Your task to perform on an android device: change the clock display to analog Image 0: 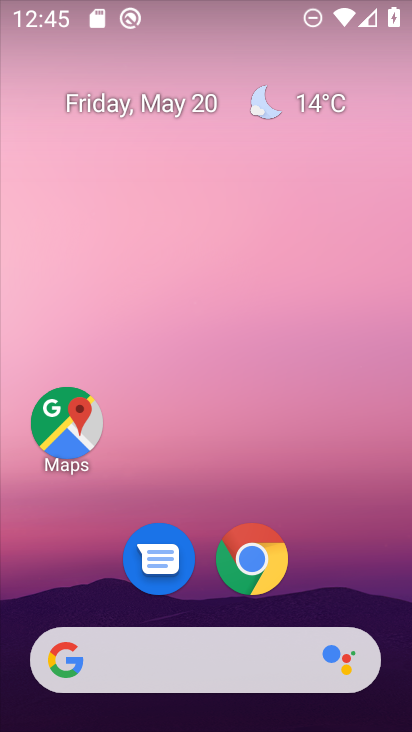
Step 0: drag from (348, 607) to (404, 301)
Your task to perform on an android device: change the clock display to analog Image 1: 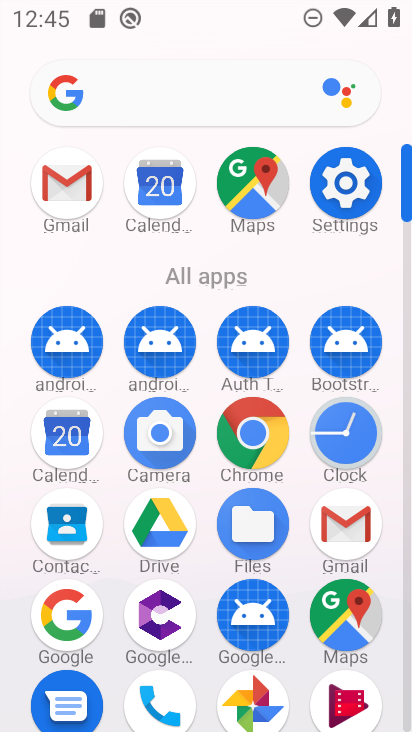
Step 1: click (369, 353)
Your task to perform on an android device: change the clock display to analog Image 2: 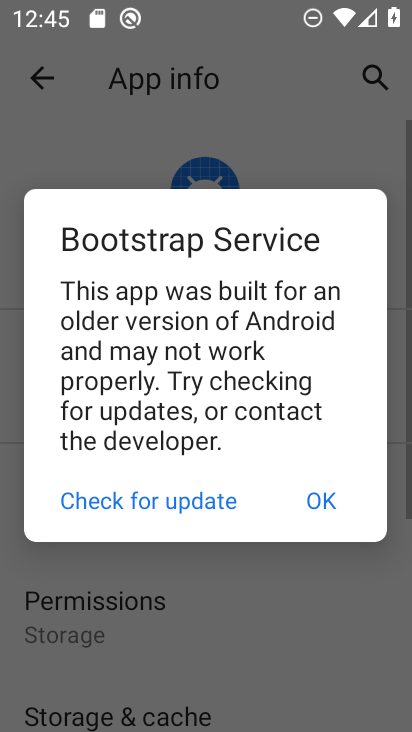
Step 2: click (314, 489)
Your task to perform on an android device: change the clock display to analog Image 3: 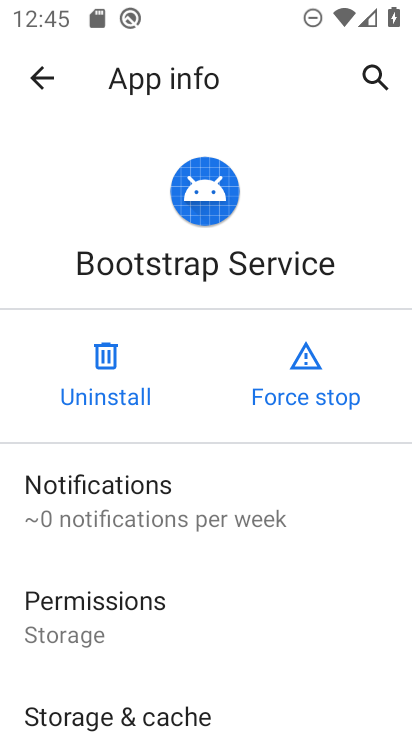
Step 3: press back button
Your task to perform on an android device: change the clock display to analog Image 4: 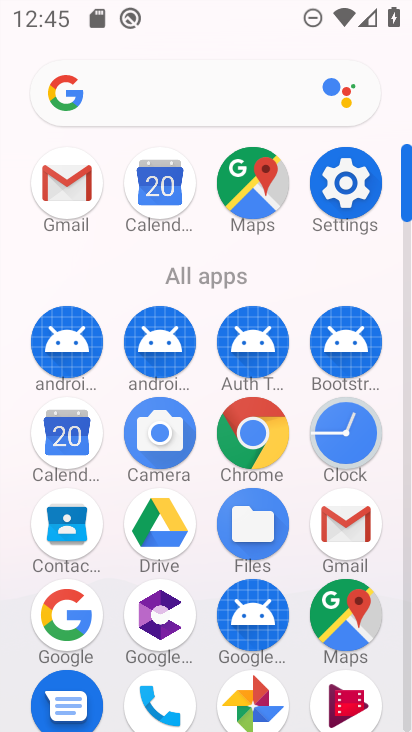
Step 4: click (336, 435)
Your task to perform on an android device: change the clock display to analog Image 5: 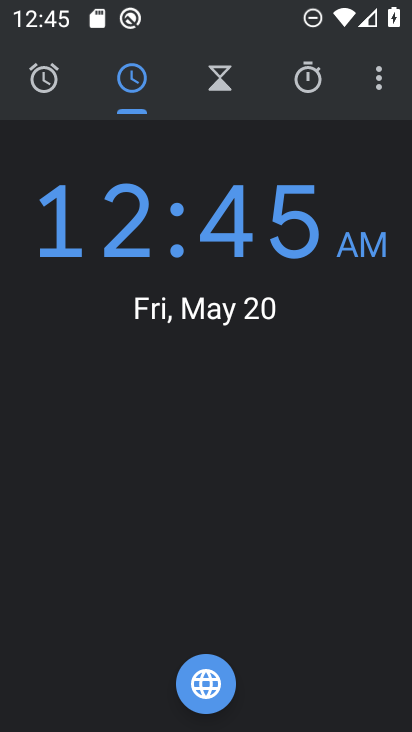
Step 5: click (392, 76)
Your task to perform on an android device: change the clock display to analog Image 6: 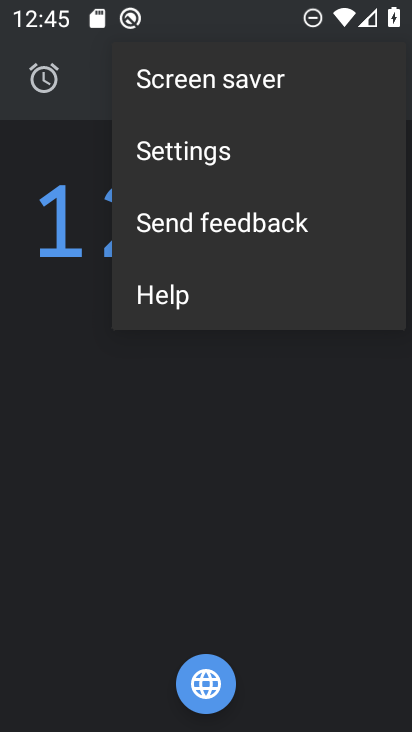
Step 6: click (285, 136)
Your task to perform on an android device: change the clock display to analog Image 7: 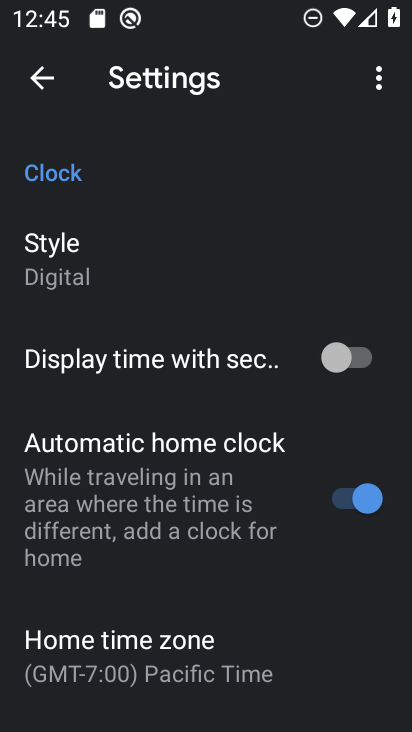
Step 7: drag from (181, 403) to (207, 196)
Your task to perform on an android device: change the clock display to analog Image 8: 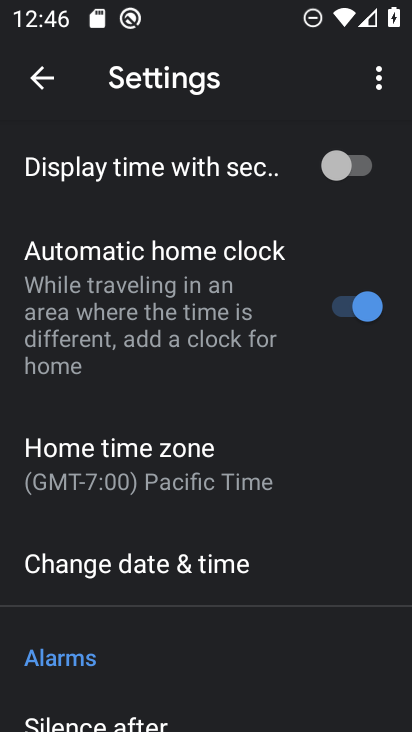
Step 8: drag from (233, 205) to (175, 249)
Your task to perform on an android device: change the clock display to analog Image 9: 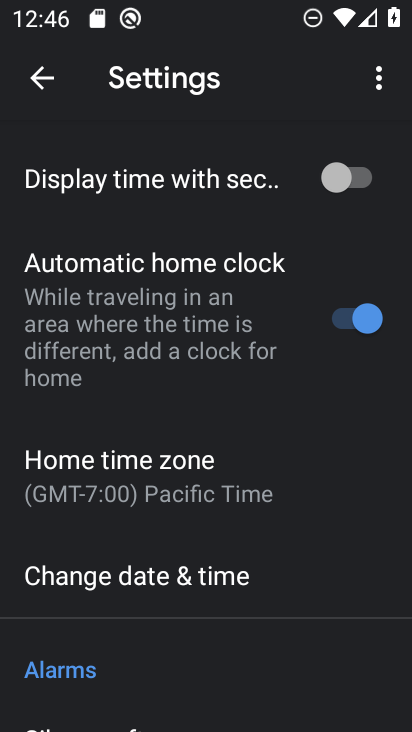
Step 9: click (256, 285)
Your task to perform on an android device: change the clock display to analog Image 10: 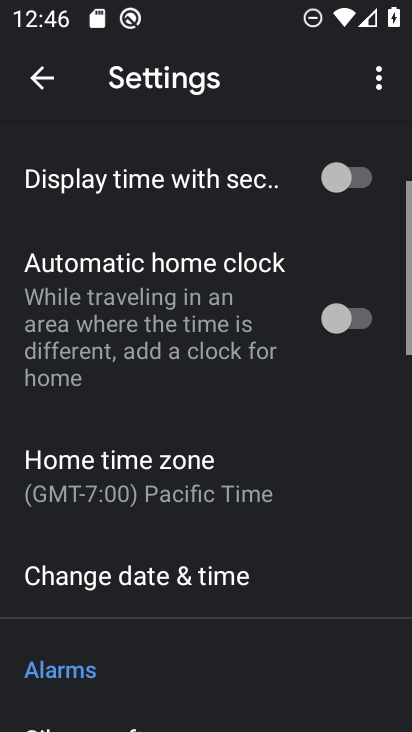
Step 10: drag from (255, 285) to (190, 479)
Your task to perform on an android device: change the clock display to analog Image 11: 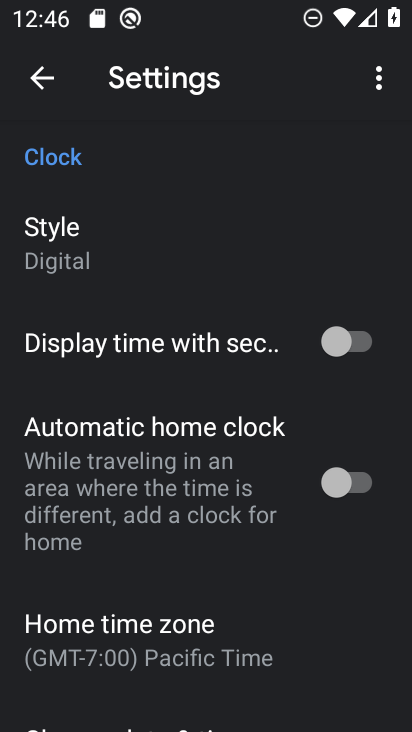
Step 11: drag from (244, 613) to (238, 529)
Your task to perform on an android device: change the clock display to analog Image 12: 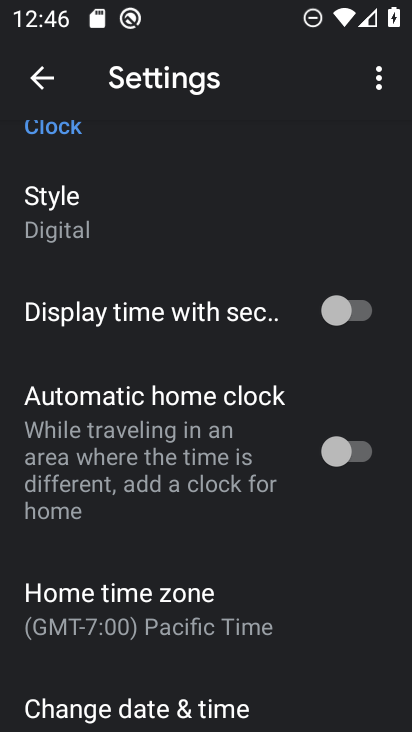
Step 12: click (192, 690)
Your task to perform on an android device: change the clock display to analog Image 13: 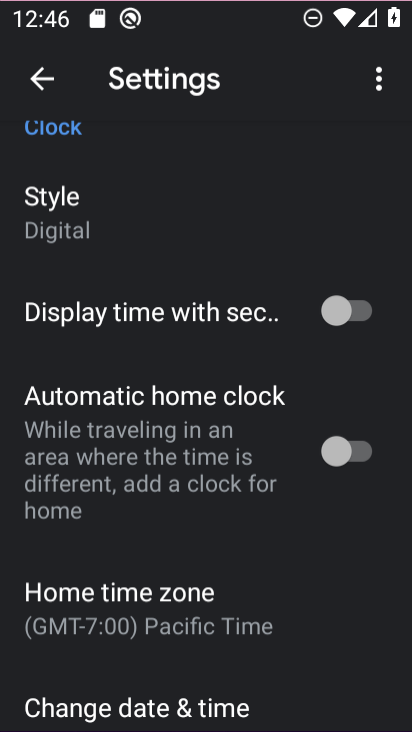
Step 13: click (192, 690)
Your task to perform on an android device: change the clock display to analog Image 14: 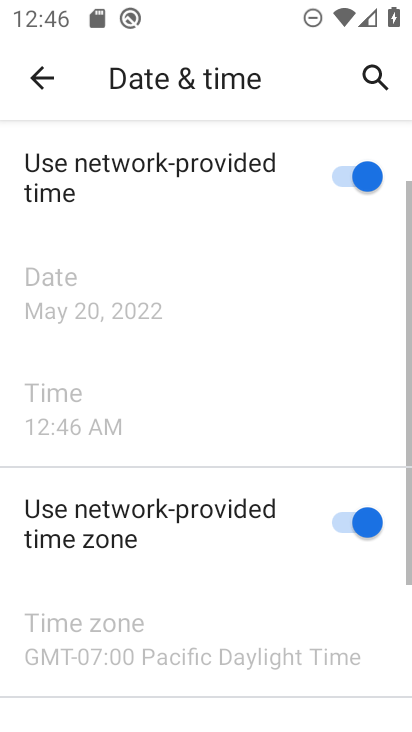
Step 14: click (192, 690)
Your task to perform on an android device: change the clock display to analog Image 15: 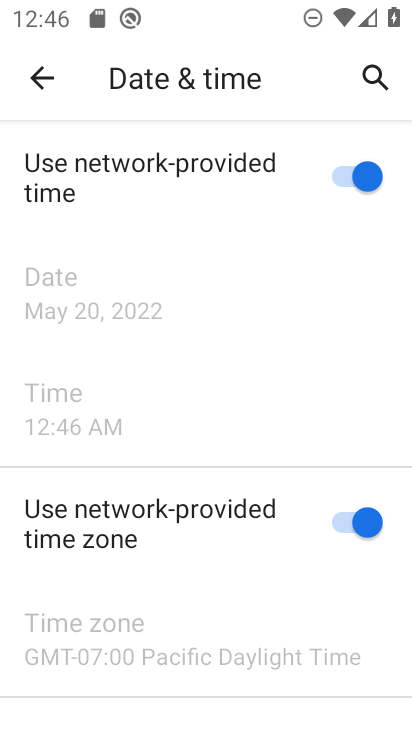
Step 15: drag from (192, 690) to (196, 611)
Your task to perform on an android device: change the clock display to analog Image 16: 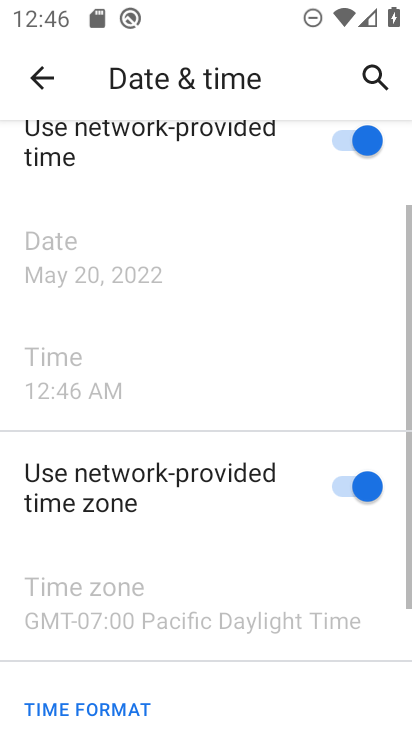
Step 16: click (196, 611)
Your task to perform on an android device: change the clock display to analog Image 17: 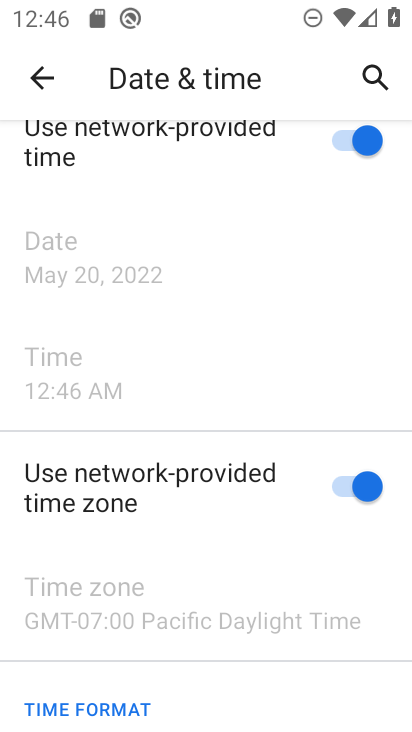
Step 17: drag from (196, 611) to (188, 505)
Your task to perform on an android device: change the clock display to analog Image 18: 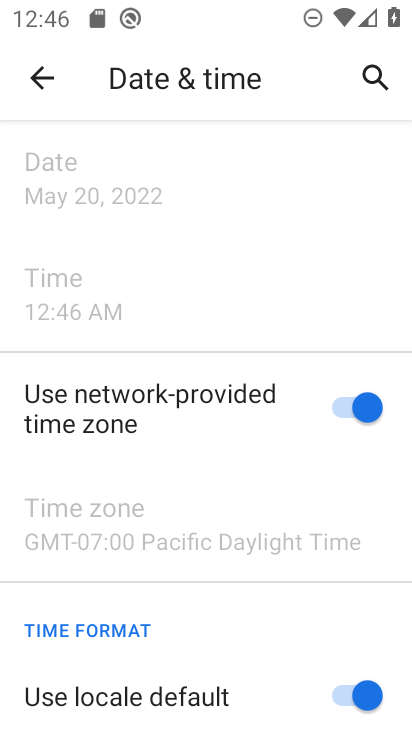
Step 18: click (202, 539)
Your task to perform on an android device: change the clock display to analog Image 19: 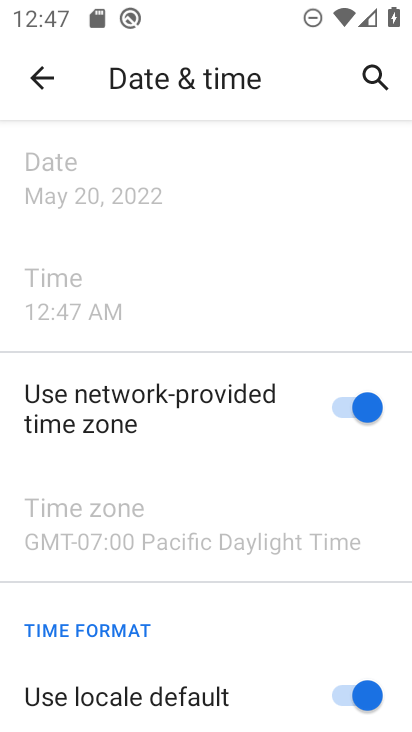
Step 19: click (202, 539)
Your task to perform on an android device: change the clock display to analog Image 20: 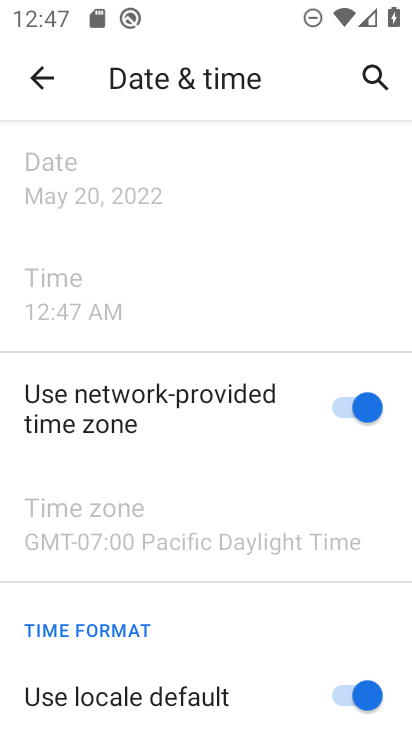
Step 20: click (202, 539)
Your task to perform on an android device: change the clock display to analog Image 21: 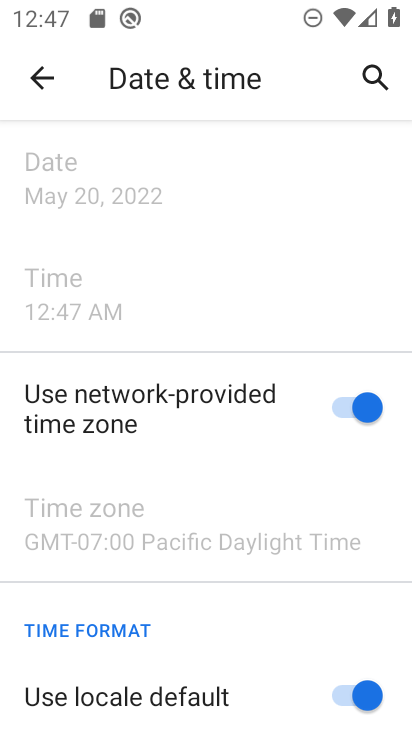
Step 21: press home button
Your task to perform on an android device: change the clock display to analog Image 22: 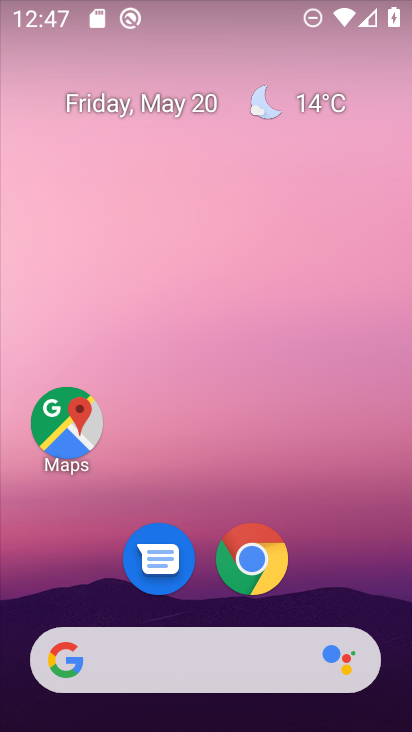
Step 22: drag from (352, 552) to (387, 397)
Your task to perform on an android device: change the clock display to analog Image 23: 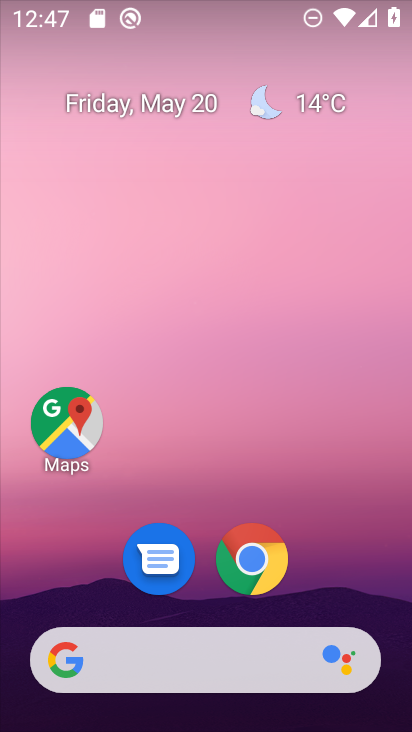
Step 23: click (382, 397)
Your task to perform on an android device: change the clock display to analog Image 24: 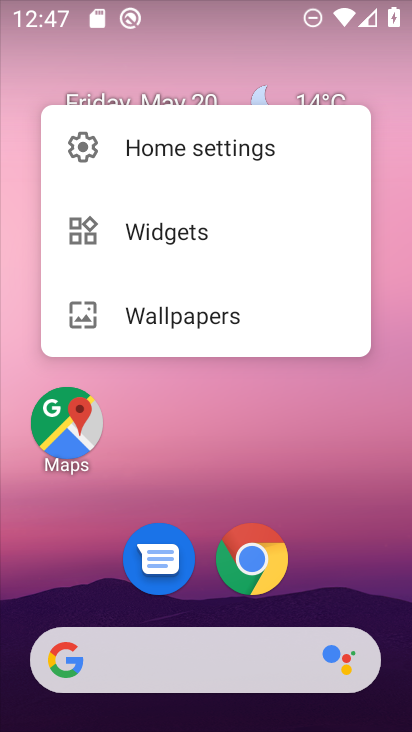
Step 24: click (355, 497)
Your task to perform on an android device: change the clock display to analog Image 25: 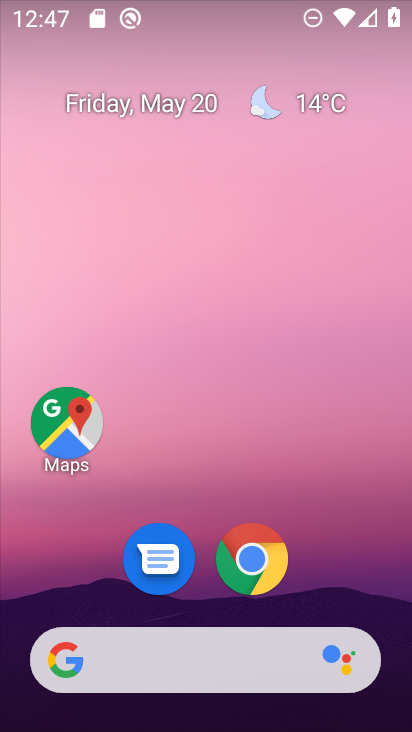
Step 25: task complete